Your task to perform on an android device: open a bookmark in the chrome app Image 0: 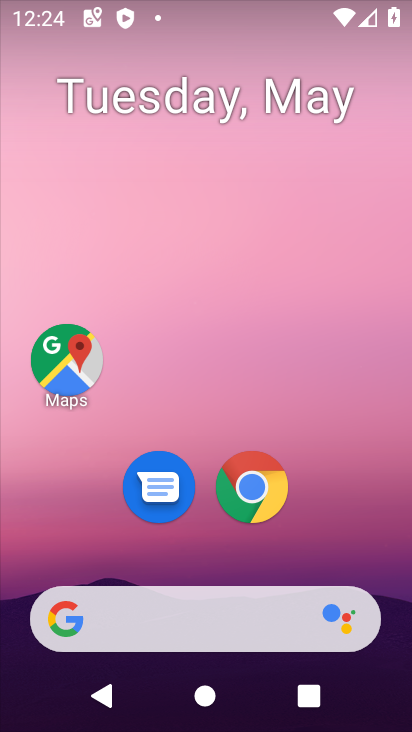
Step 0: drag from (365, 542) to (306, 50)
Your task to perform on an android device: open a bookmark in the chrome app Image 1: 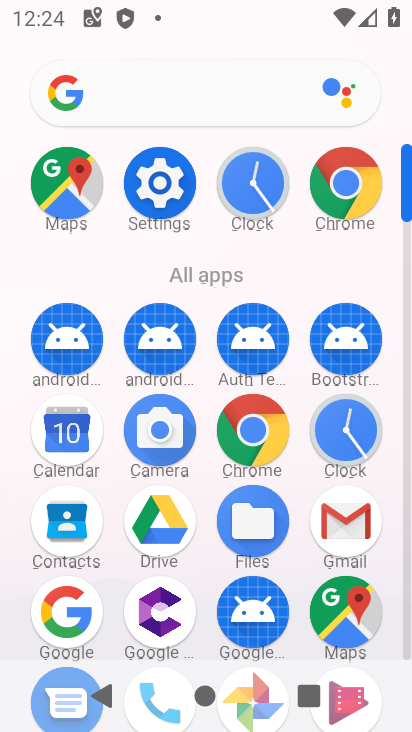
Step 1: click (344, 184)
Your task to perform on an android device: open a bookmark in the chrome app Image 2: 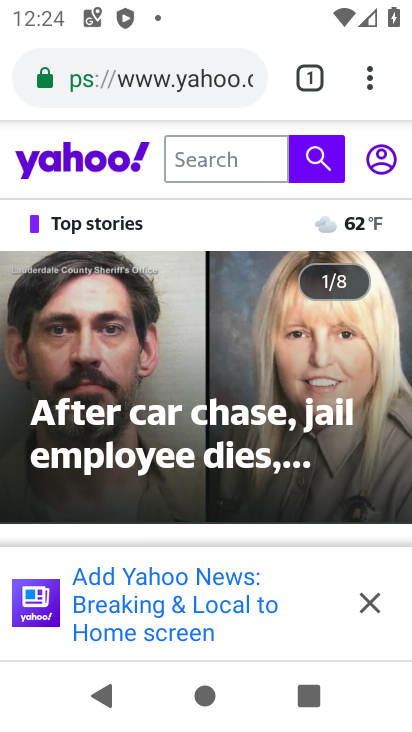
Step 2: task complete